Your task to perform on an android device: toggle notification dots Image 0: 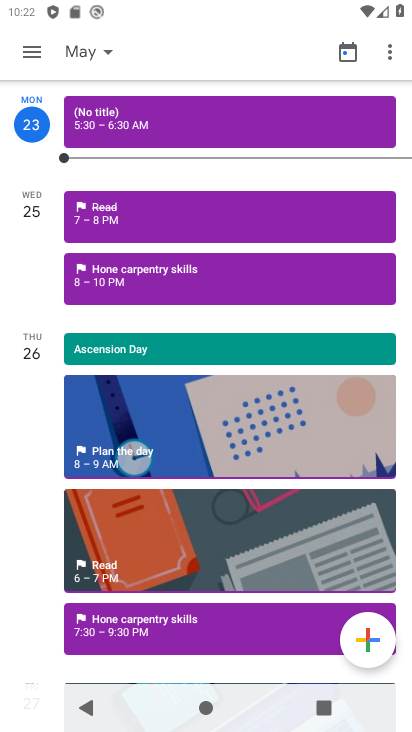
Step 0: press home button
Your task to perform on an android device: toggle notification dots Image 1: 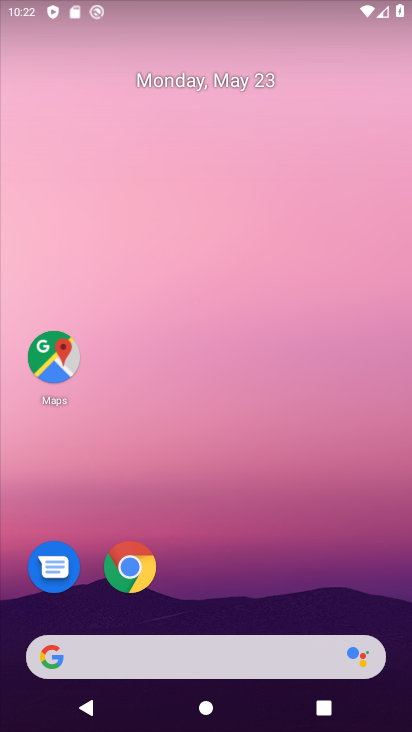
Step 1: drag from (211, 630) to (339, 102)
Your task to perform on an android device: toggle notification dots Image 2: 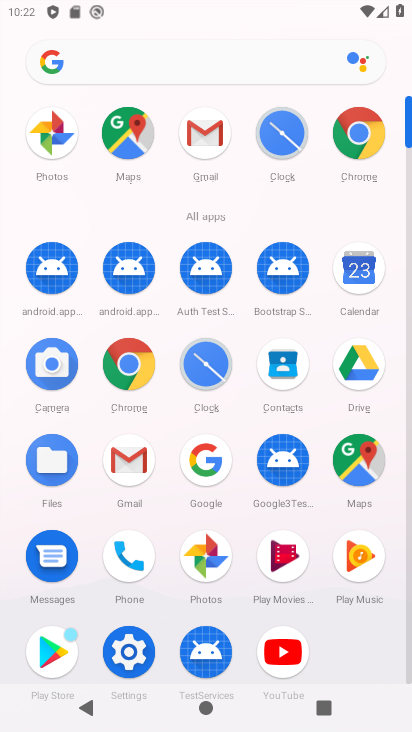
Step 2: click (129, 641)
Your task to perform on an android device: toggle notification dots Image 3: 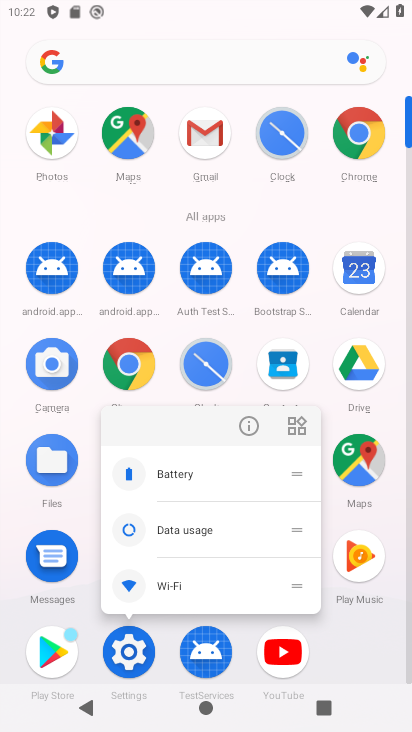
Step 3: click (129, 665)
Your task to perform on an android device: toggle notification dots Image 4: 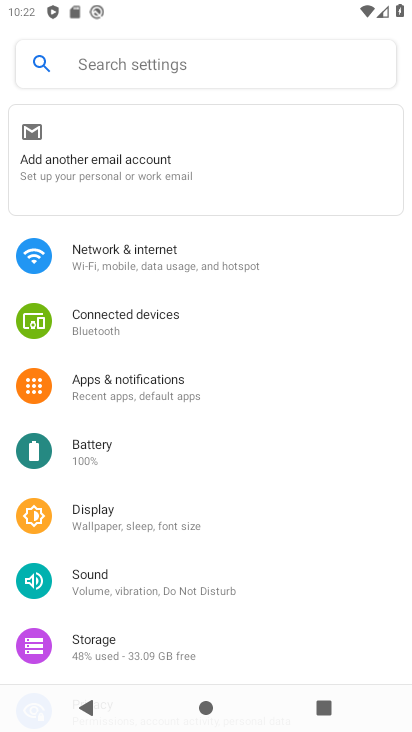
Step 4: click (154, 398)
Your task to perform on an android device: toggle notification dots Image 5: 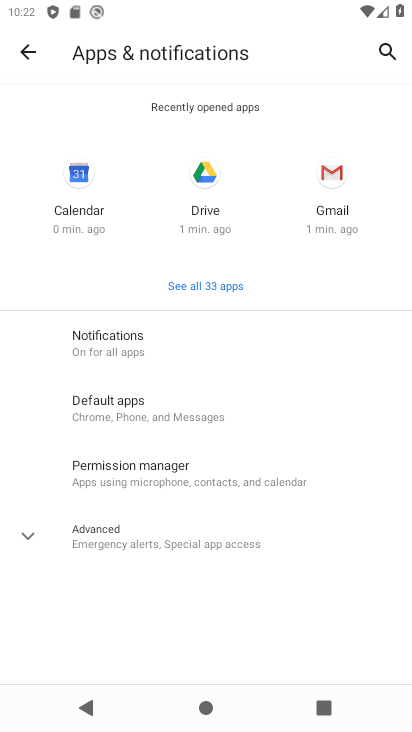
Step 5: click (178, 358)
Your task to perform on an android device: toggle notification dots Image 6: 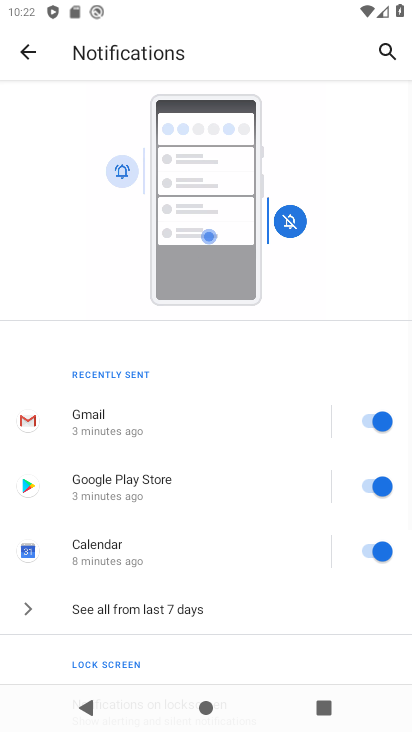
Step 6: drag from (152, 656) to (254, 176)
Your task to perform on an android device: toggle notification dots Image 7: 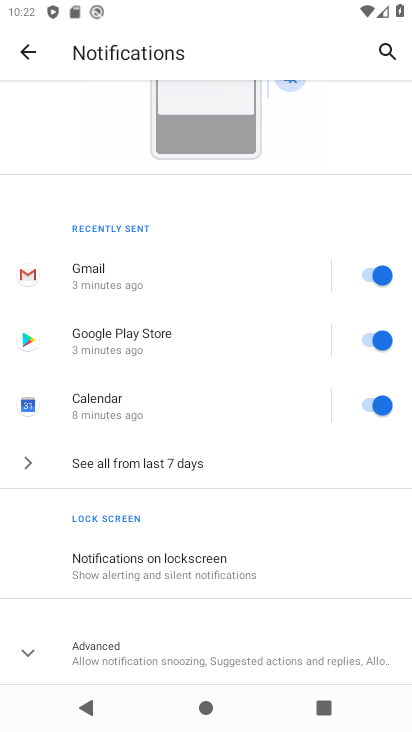
Step 7: click (173, 662)
Your task to perform on an android device: toggle notification dots Image 8: 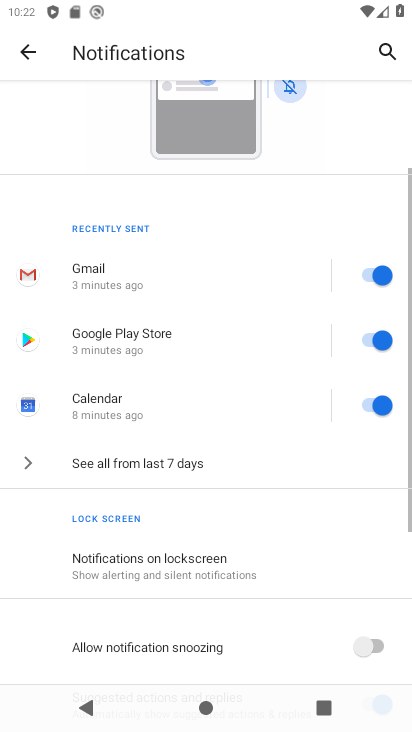
Step 8: drag from (172, 657) to (264, 227)
Your task to perform on an android device: toggle notification dots Image 9: 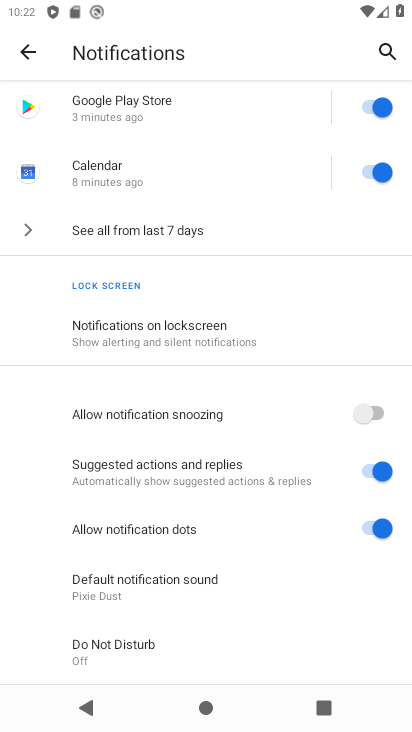
Step 9: click (368, 525)
Your task to perform on an android device: toggle notification dots Image 10: 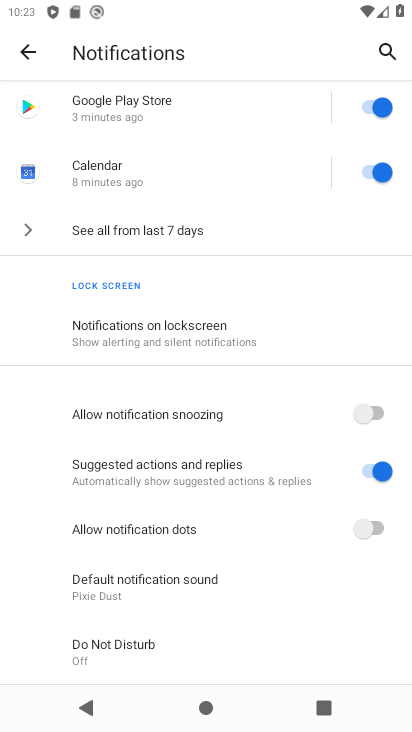
Step 10: task complete